Your task to perform on an android device: Is it going to rain this weekend? Image 0: 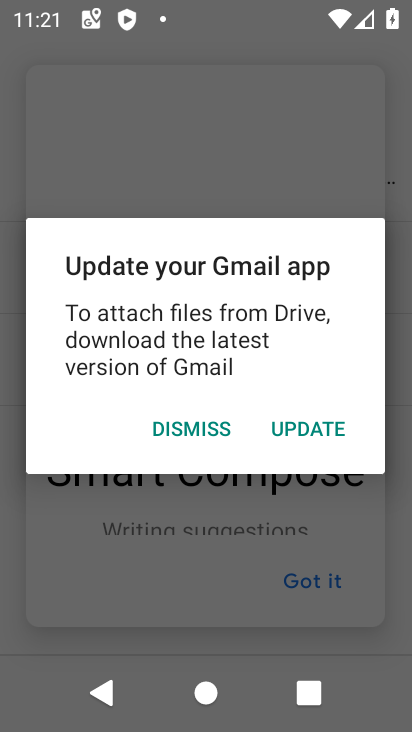
Step 0: press home button
Your task to perform on an android device: Is it going to rain this weekend? Image 1: 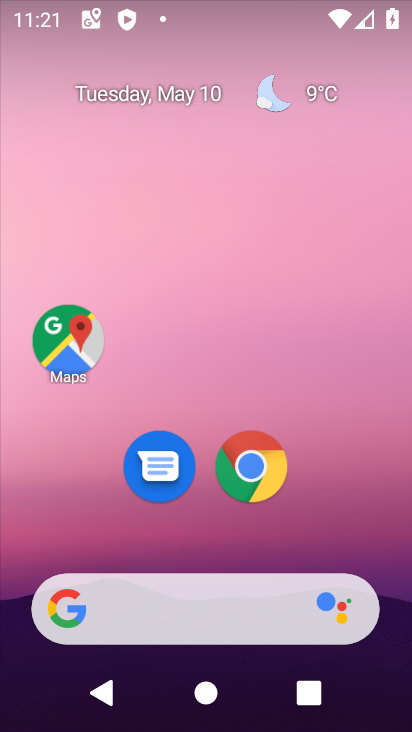
Step 1: drag from (297, 521) to (261, 58)
Your task to perform on an android device: Is it going to rain this weekend? Image 2: 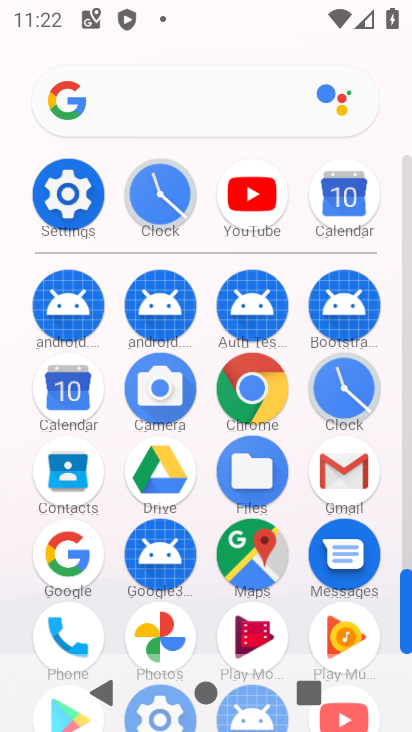
Step 2: click (171, 107)
Your task to perform on an android device: Is it going to rain this weekend? Image 3: 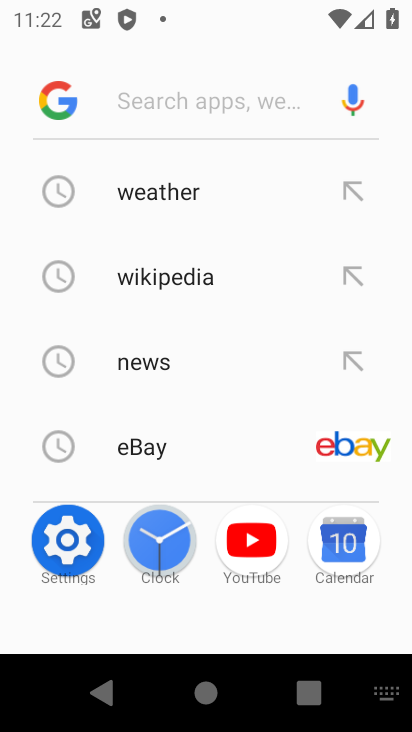
Step 3: type "is it going to rain this weekend"
Your task to perform on an android device: Is it going to rain this weekend? Image 4: 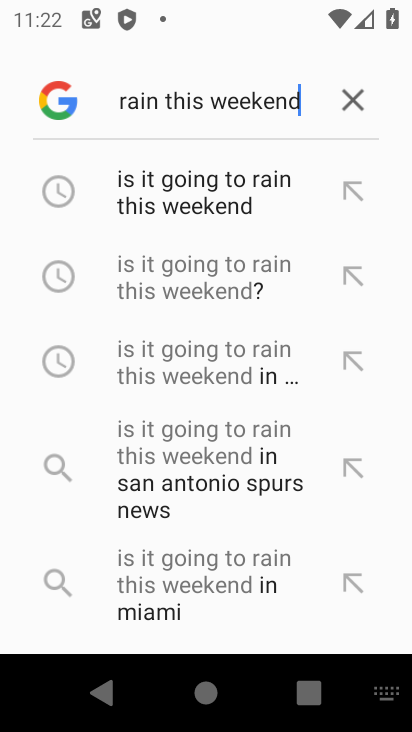
Step 4: click (213, 166)
Your task to perform on an android device: Is it going to rain this weekend? Image 5: 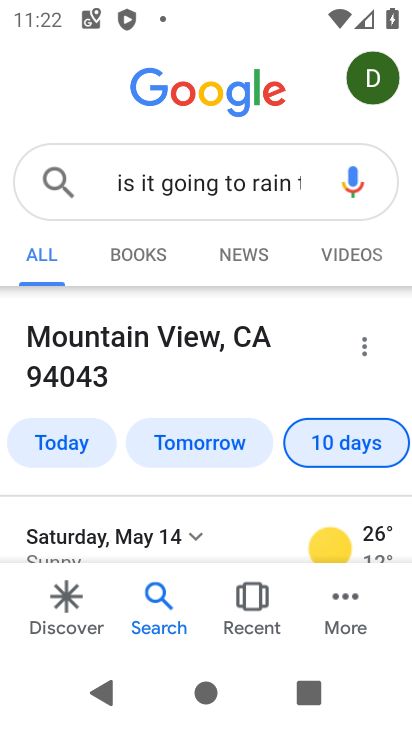
Step 5: task complete